Your task to perform on an android device: check google app version Image 0: 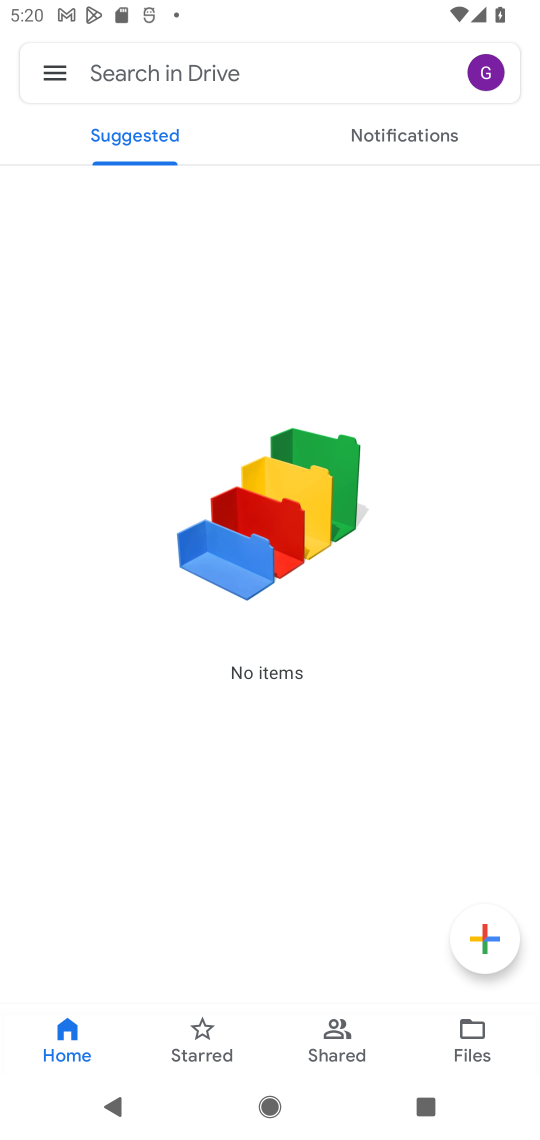
Step 0: press home button
Your task to perform on an android device: check google app version Image 1: 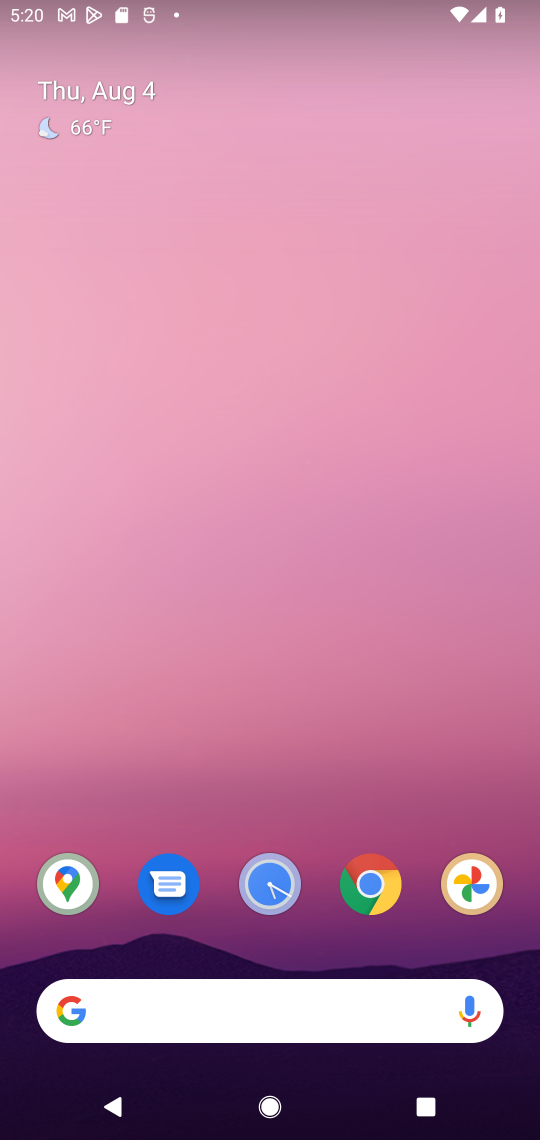
Step 1: click (352, 905)
Your task to perform on an android device: check google app version Image 2: 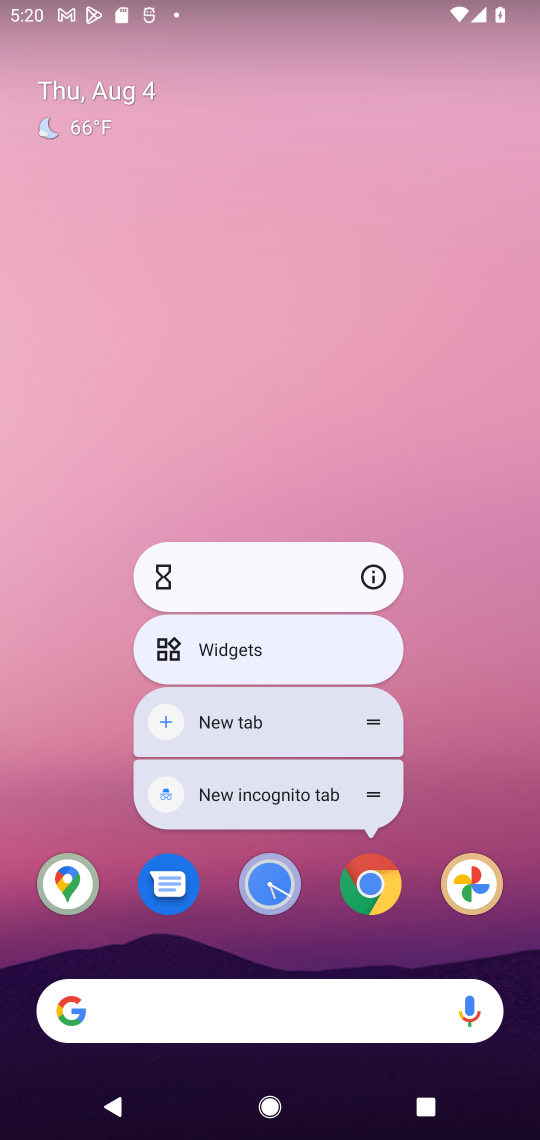
Step 2: click (371, 580)
Your task to perform on an android device: check google app version Image 3: 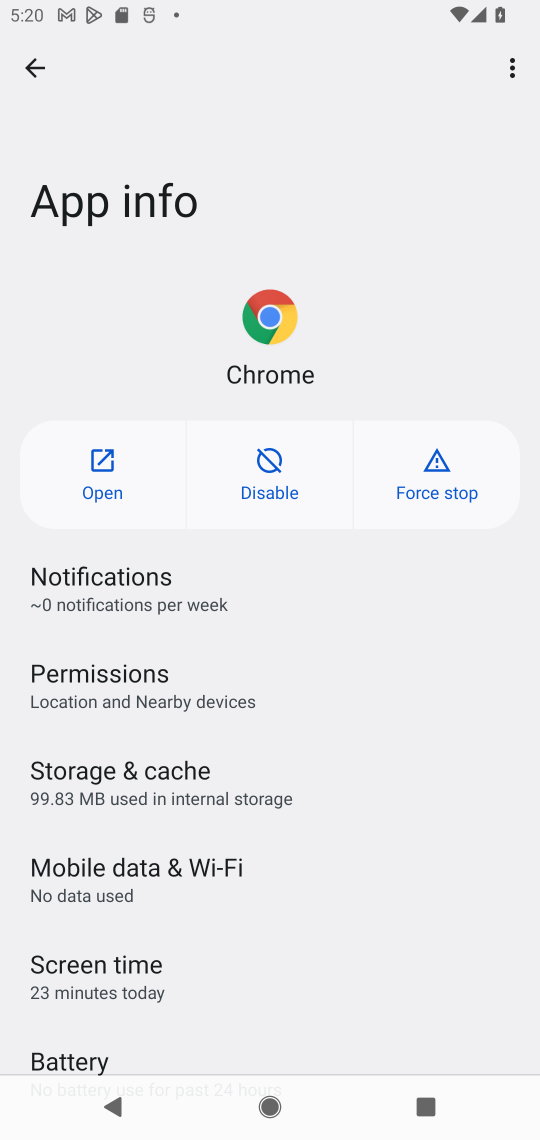
Step 3: task complete